Your task to perform on an android device: all mails in gmail Image 0: 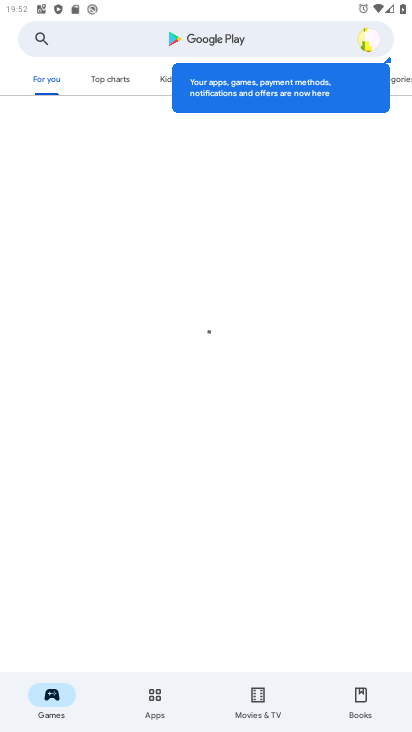
Step 0: press home button
Your task to perform on an android device: all mails in gmail Image 1: 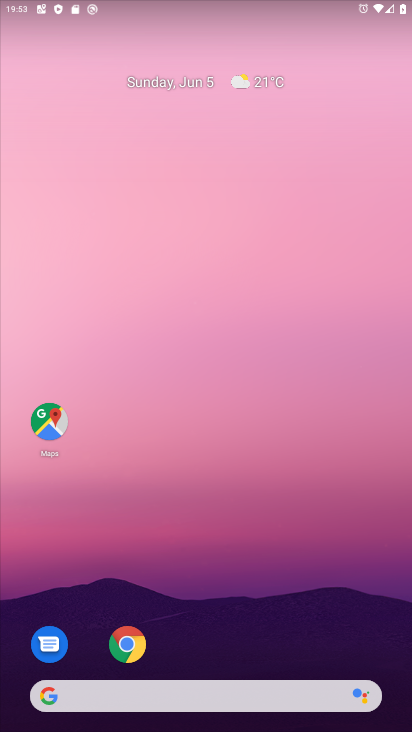
Step 1: drag from (33, 534) to (187, 308)
Your task to perform on an android device: all mails in gmail Image 2: 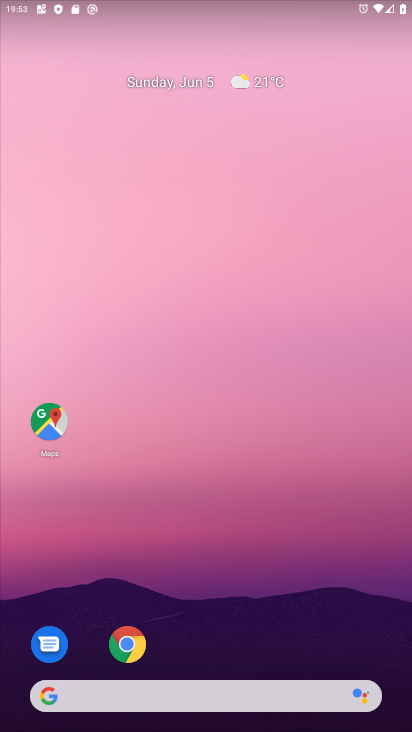
Step 2: drag from (41, 578) to (332, 180)
Your task to perform on an android device: all mails in gmail Image 3: 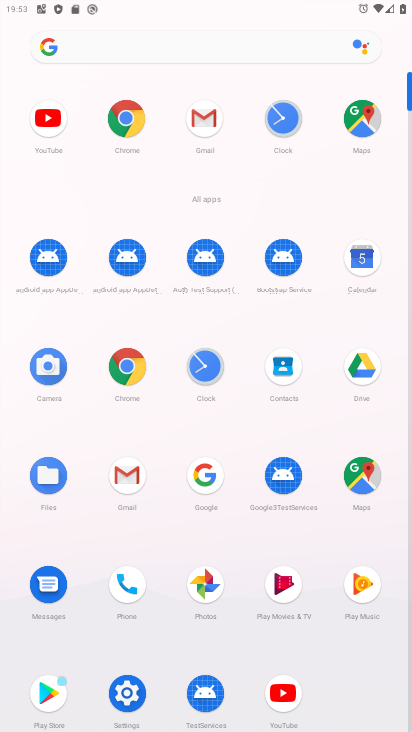
Step 3: click (121, 487)
Your task to perform on an android device: all mails in gmail Image 4: 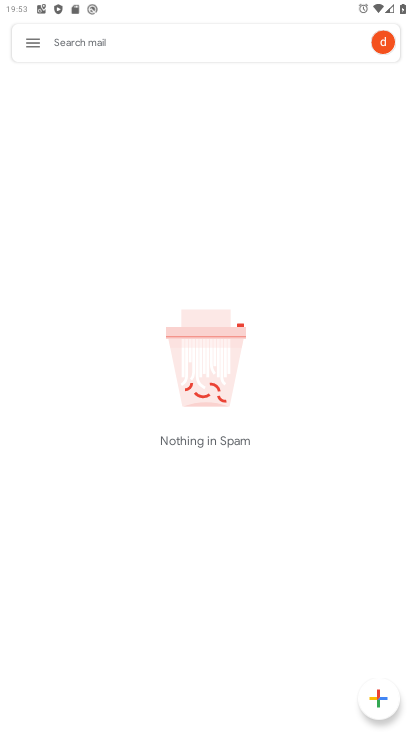
Step 4: click (269, 418)
Your task to perform on an android device: all mails in gmail Image 5: 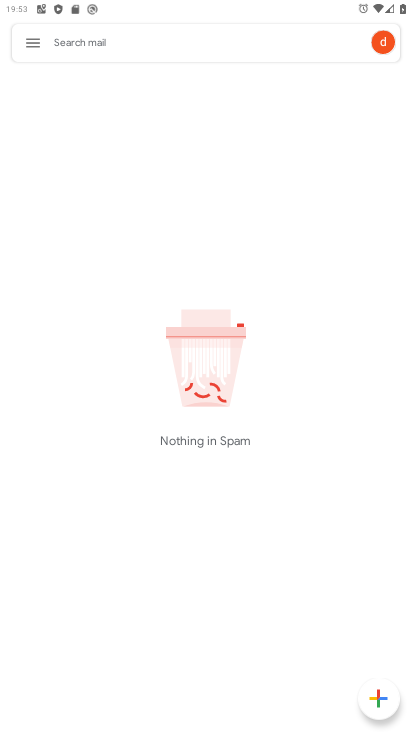
Step 5: click (34, 39)
Your task to perform on an android device: all mails in gmail Image 6: 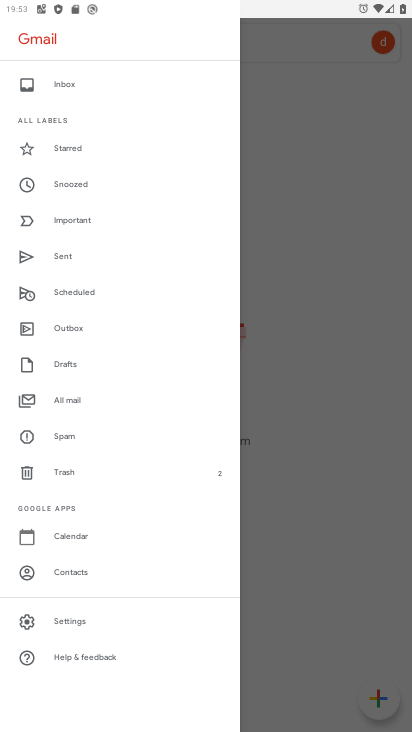
Step 6: click (55, 407)
Your task to perform on an android device: all mails in gmail Image 7: 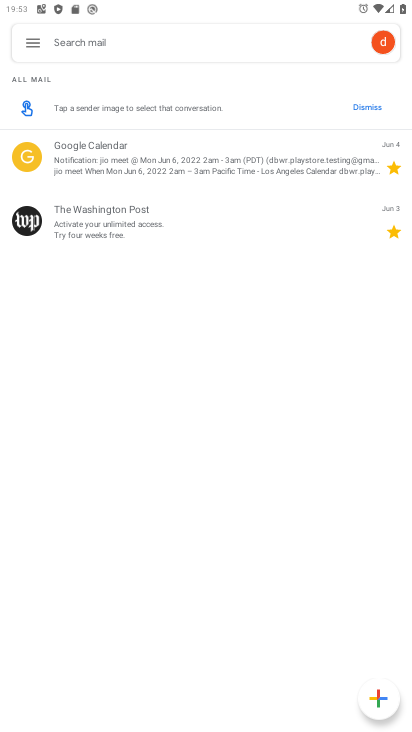
Step 7: task complete